Your task to perform on an android device: delete a single message in the gmail app Image 0: 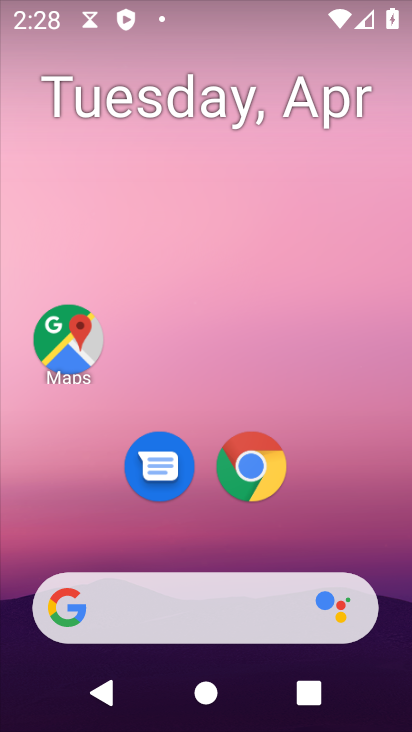
Step 0: drag from (401, 611) to (402, 97)
Your task to perform on an android device: delete a single message in the gmail app Image 1: 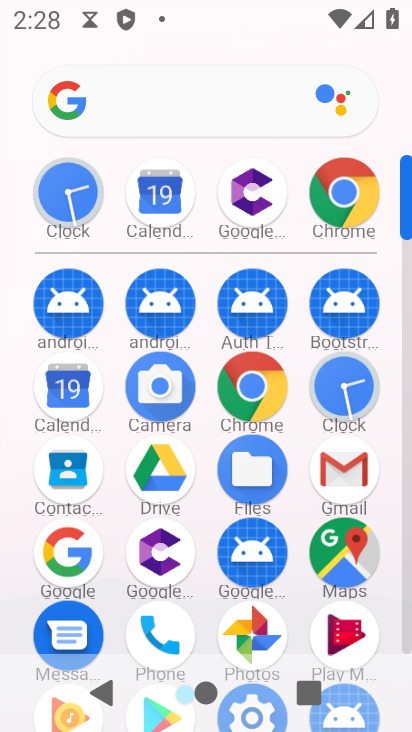
Step 1: click (346, 462)
Your task to perform on an android device: delete a single message in the gmail app Image 2: 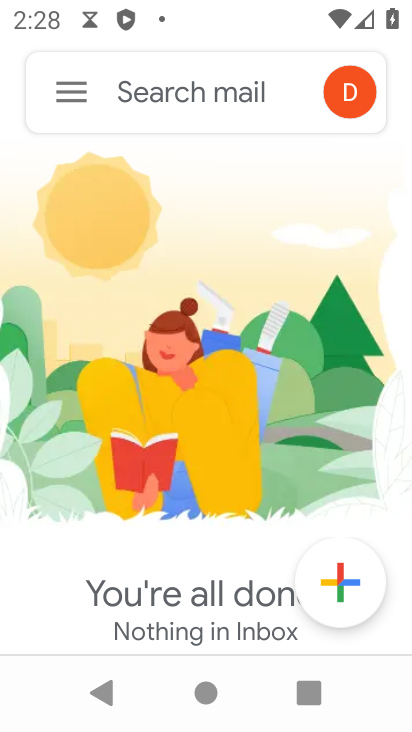
Step 2: click (69, 99)
Your task to perform on an android device: delete a single message in the gmail app Image 3: 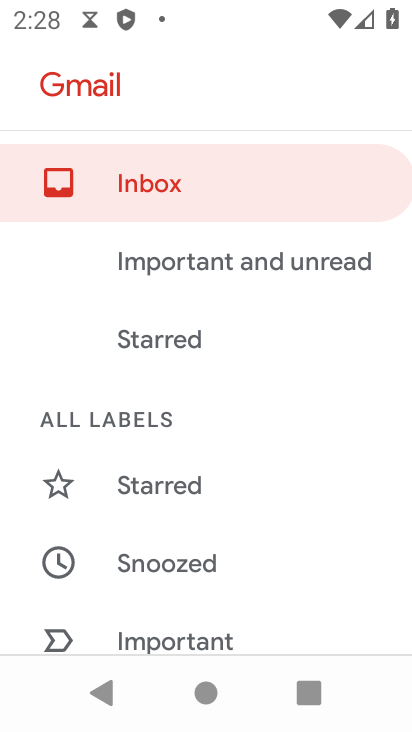
Step 3: drag from (182, 536) to (196, 245)
Your task to perform on an android device: delete a single message in the gmail app Image 4: 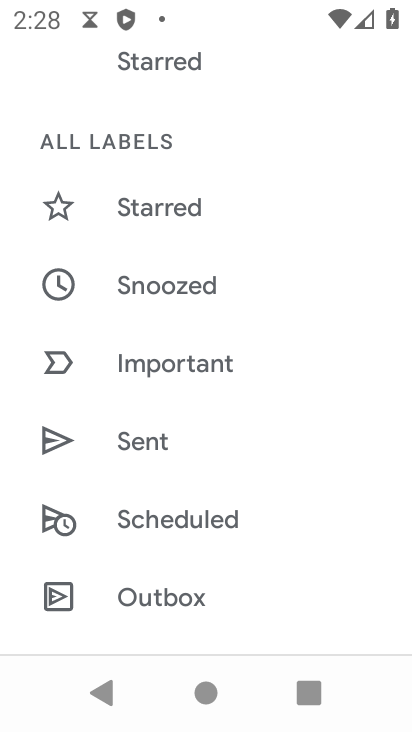
Step 4: drag from (187, 515) to (185, 254)
Your task to perform on an android device: delete a single message in the gmail app Image 5: 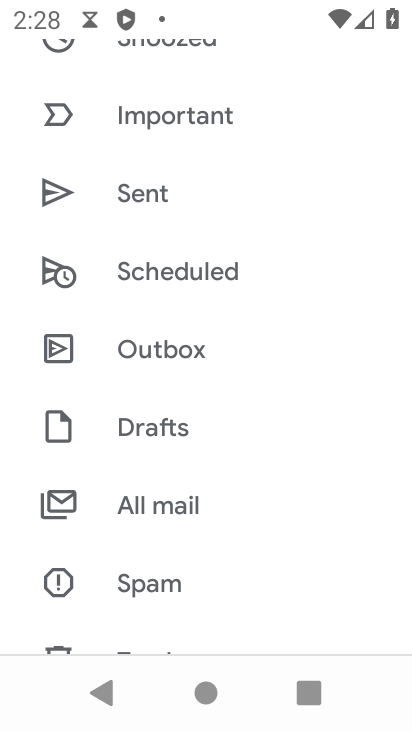
Step 5: click (138, 496)
Your task to perform on an android device: delete a single message in the gmail app Image 6: 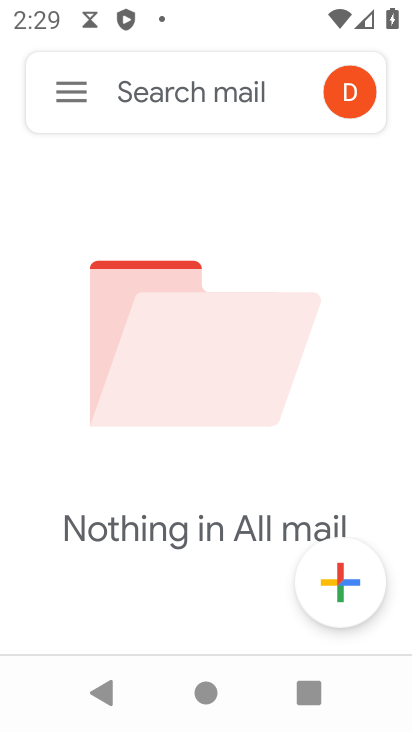
Step 6: click (63, 89)
Your task to perform on an android device: delete a single message in the gmail app Image 7: 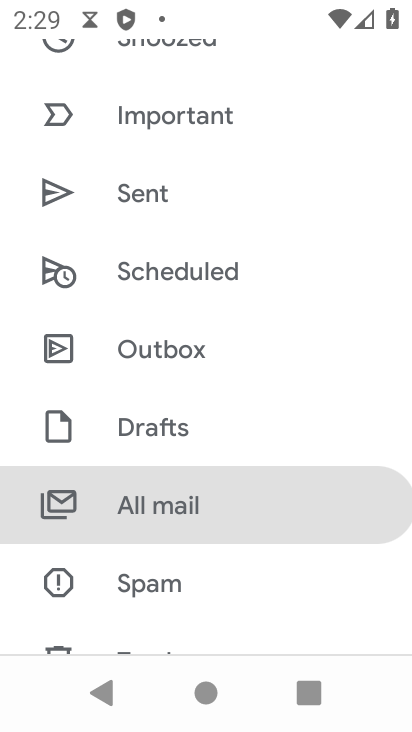
Step 7: drag from (219, 334) to (232, 184)
Your task to perform on an android device: delete a single message in the gmail app Image 8: 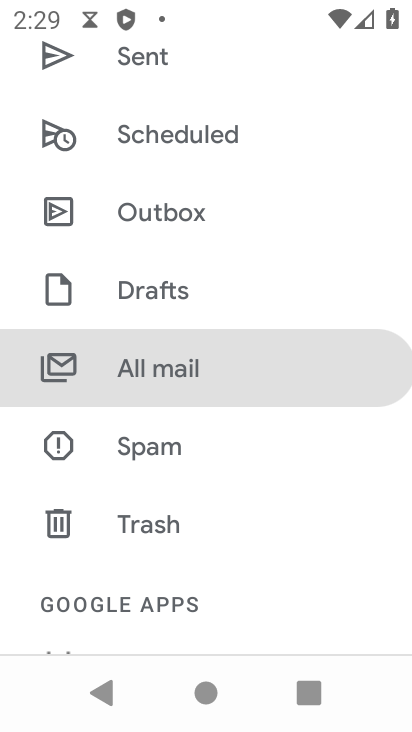
Step 8: drag from (175, 582) to (192, 133)
Your task to perform on an android device: delete a single message in the gmail app Image 9: 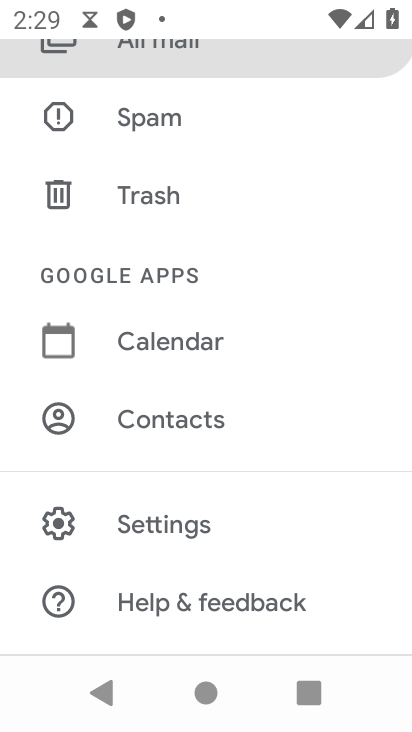
Step 9: drag from (219, 148) to (213, 509)
Your task to perform on an android device: delete a single message in the gmail app Image 10: 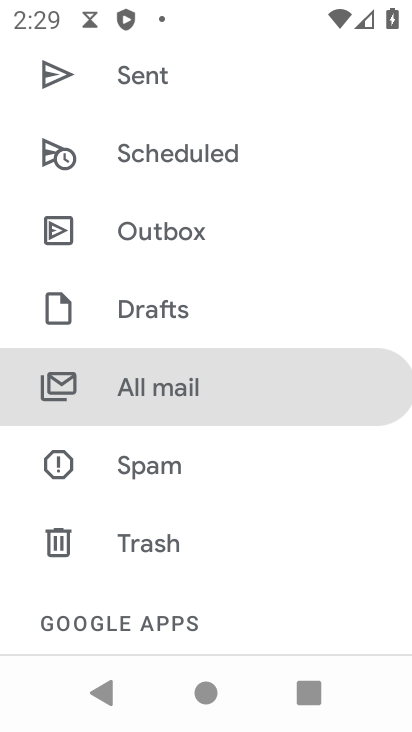
Step 10: drag from (207, 169) to (210, 545)
Your task to perform on an android device: delete a single message in the gmail app Image 11: 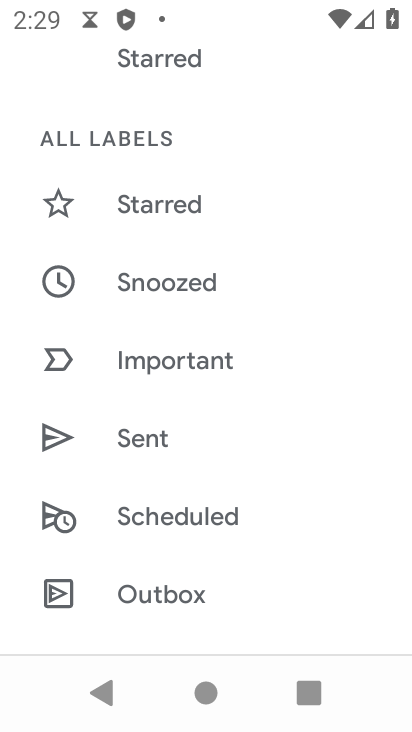
Step 11: drag from (225, 221) to (179, 588)
Your task to perform on an android device: delete a single message in the gmail app Image 12: 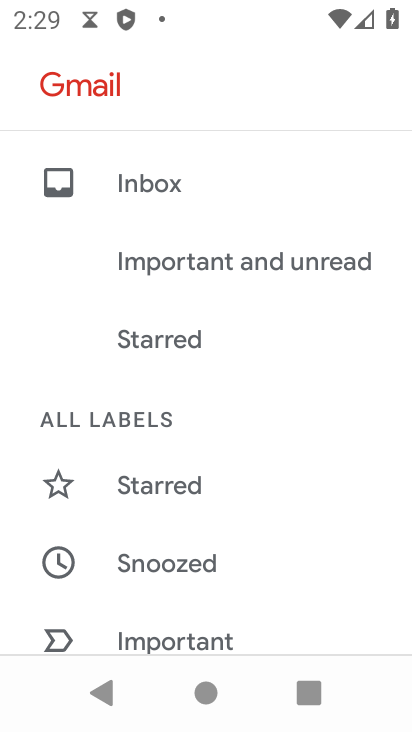
Step 12: click (210, 115)
Your task to perform on an android device: delete a single message in the gmail app Image 13: 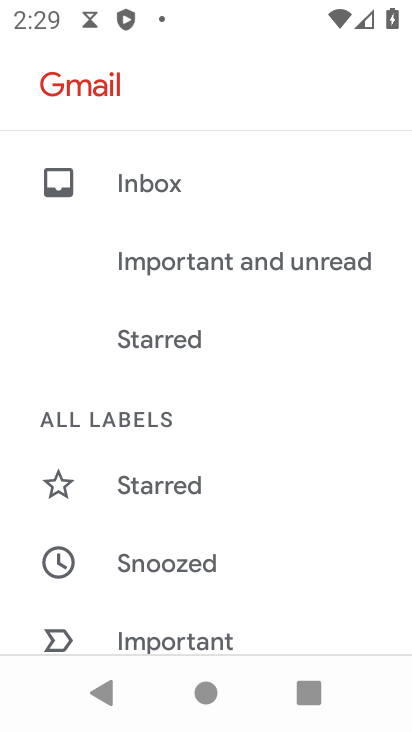
Step 13: click (189, 191)
Your task to perform on an android device: delete a single message in the gmail app Image 14: 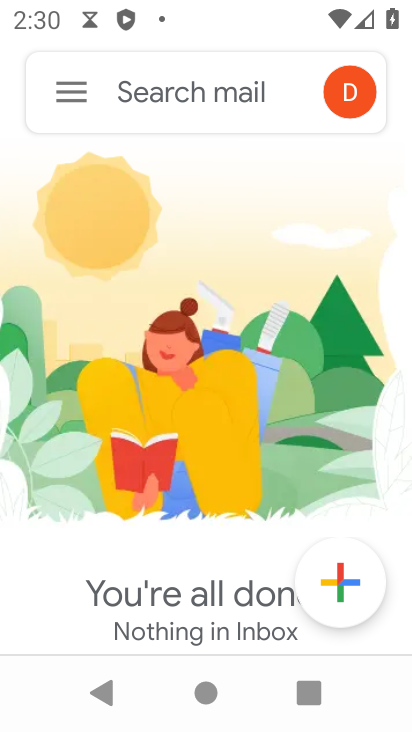
Step 14: task complete